Your task to perform on an android device: clear history in the chrome app Image 0: 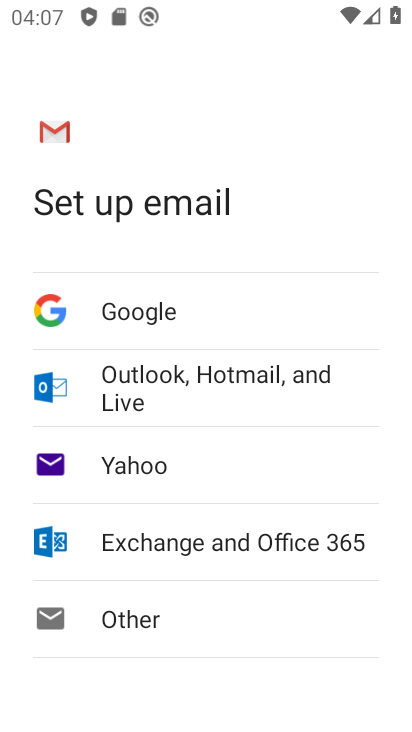
Step 0: press home button
Your task to perform on an android device: clear history in the chrome app Image 1: 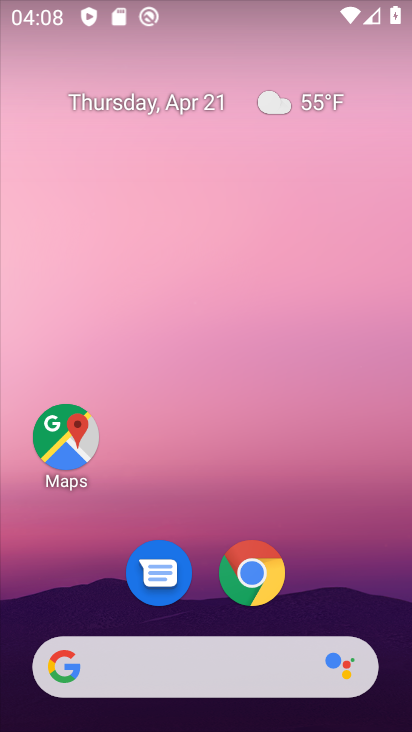
Step 1: click (243, 580)
Your task to perform on an android device: clear history in the chrome app Image 2: 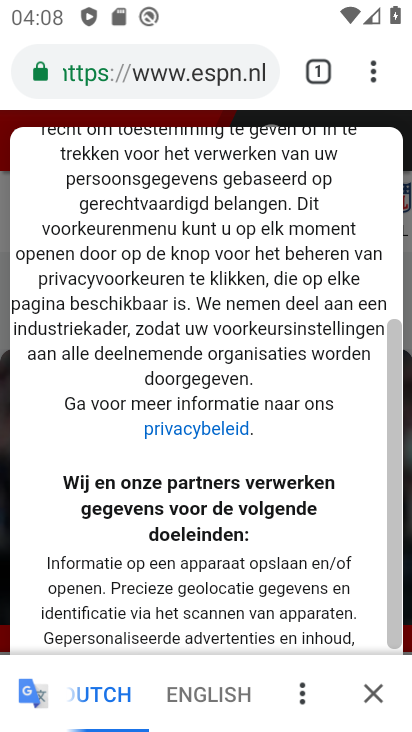
Step 2: drag from (369, 67) to (154, 404)
Your task to perform on an android device: clear history in the chrome app Image 3: 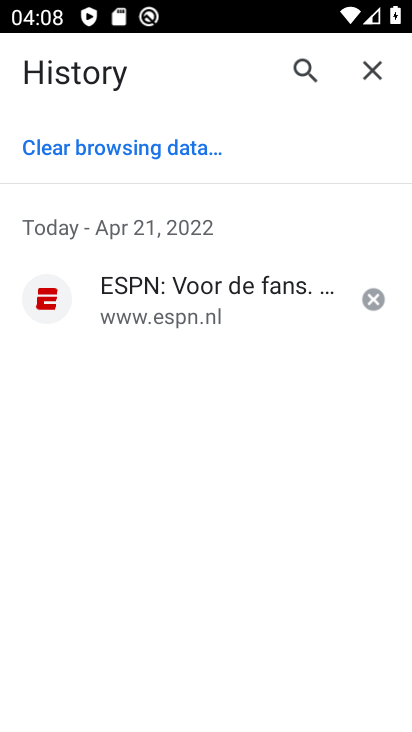
Step 3: click (144, 153)
Your task to perform on an android device: clear history in the chrome app Image 4: 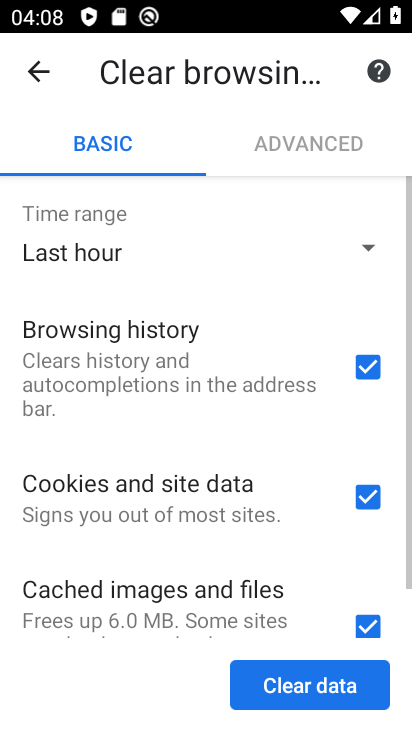
Step 4: click (325, 693)
Your task to perform on an android device: clear history in the chrome app Image 5: 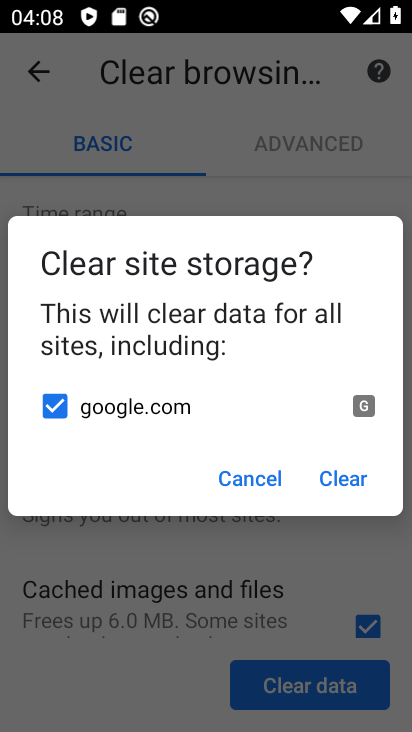
Step 5: click (323, 482)
Your task to perform on an android device: clear history in the chrome app Image 6: 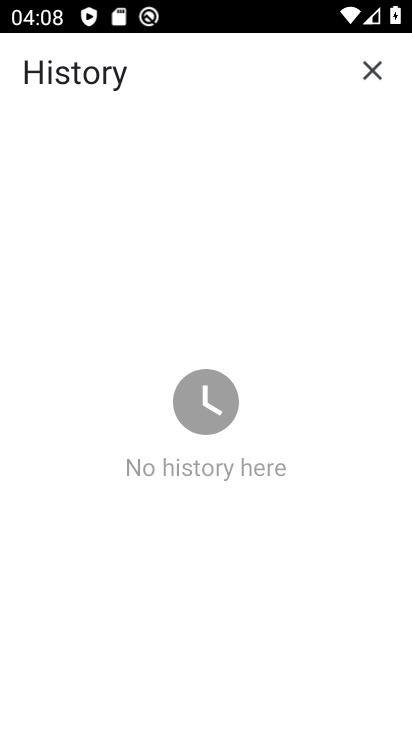
Step 6: task complete